Your task to perform on an android device: Go to internet settings Image 0: 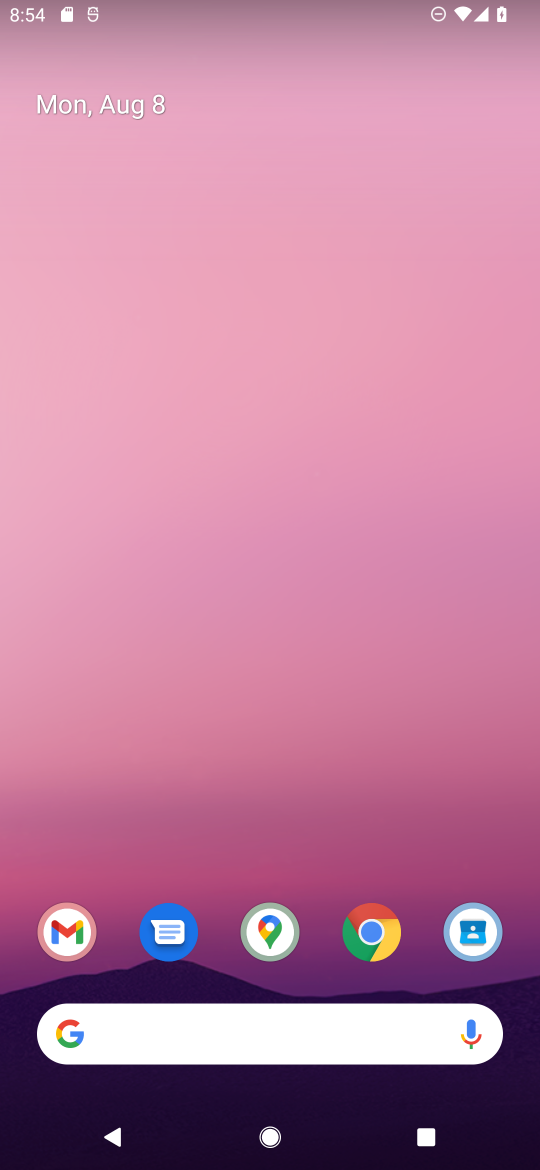
Step 0: drag from (146, 845) to (213, 31)
Your task to perform on an android device: Go to internet settings Image 1: 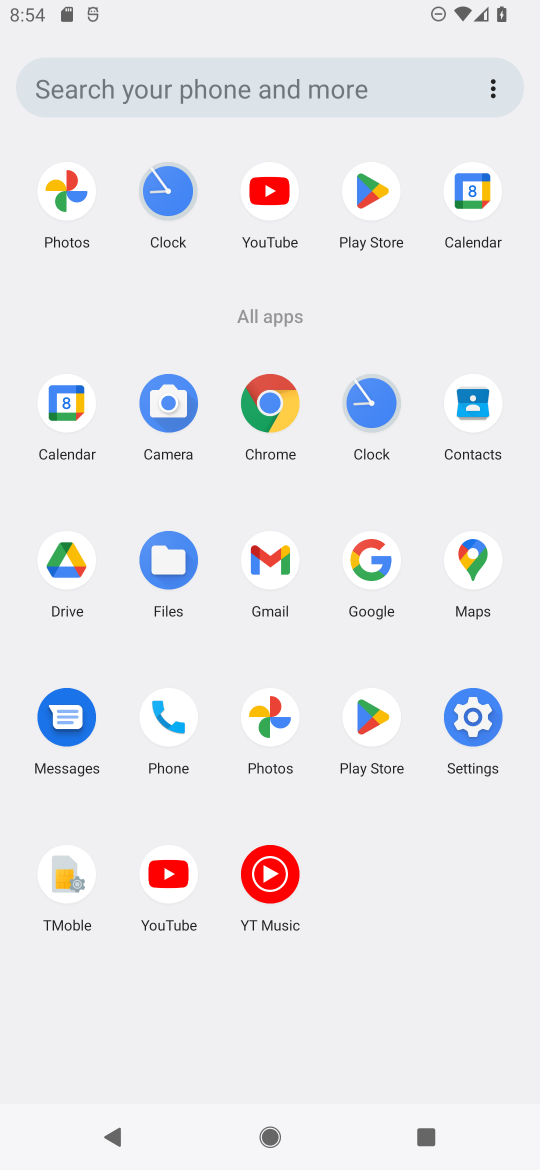
Step 1: click (466, 739)
Your task to perform on an android device: Go to internet settings Image 2: 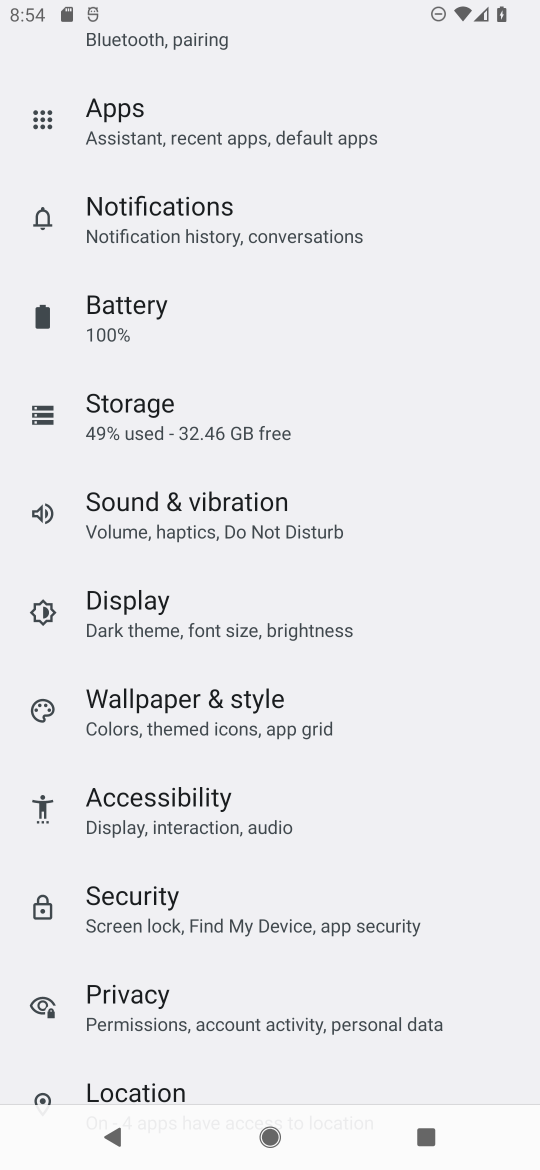
Step 2: drag from (290, 366) to (252, 1167)
Your task to perform on an android device: Go to internet settings Image 3: 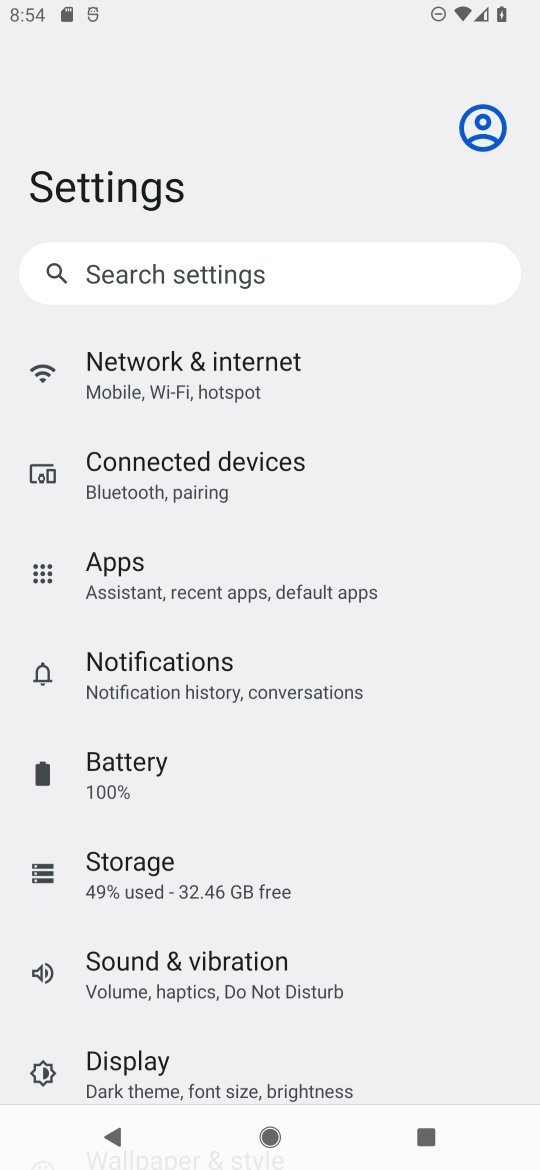
Step 3: click (247, 370)
Your task to perform on an android device: Go to internet settings Image 4: 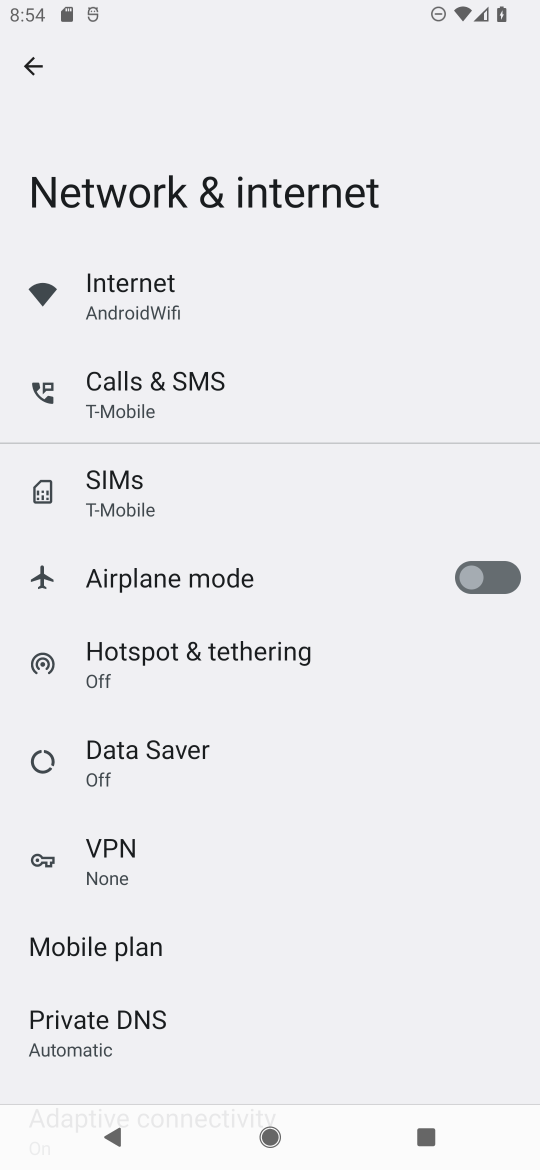
Step 4: task complete